Your task to perform on an android device: When is my next meeting? Image 0: 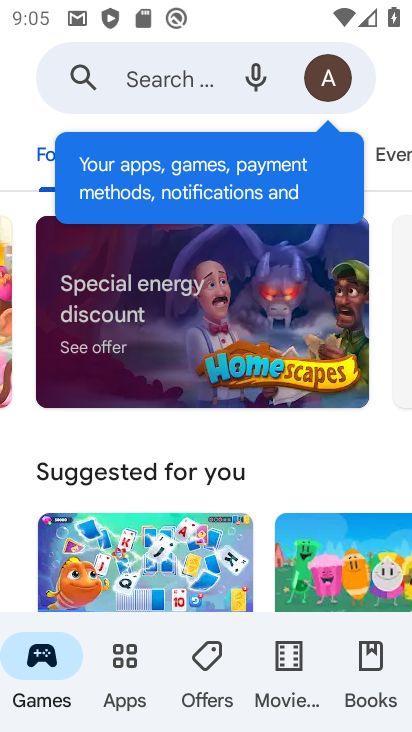
Step 0: press home button
Your task to perform on an android device: When is my next meeting? Image 1: 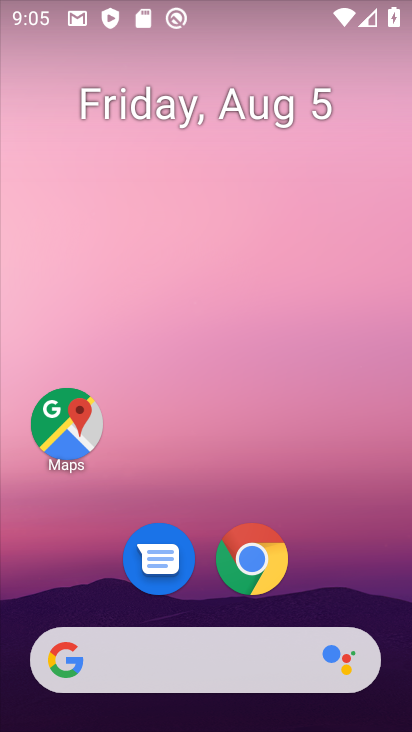
Step 1: drag from (312, 667) to (225, 207)
Your task to perform on an android device: When is my next meeting? Image 2: 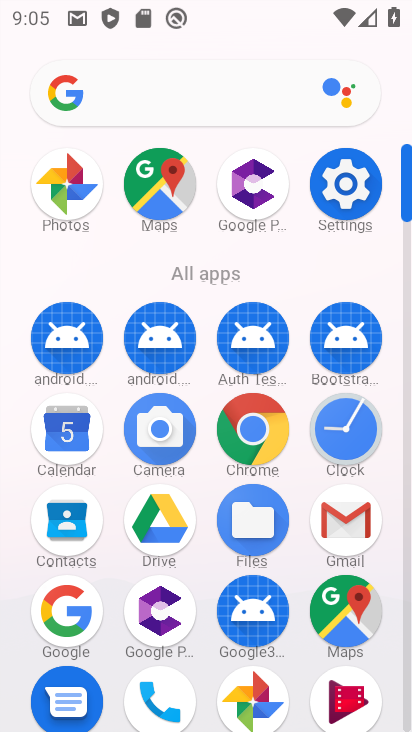
Step 2: click (65, 436)
Your task to perform on an android device: When is my next meeting? Image 3: 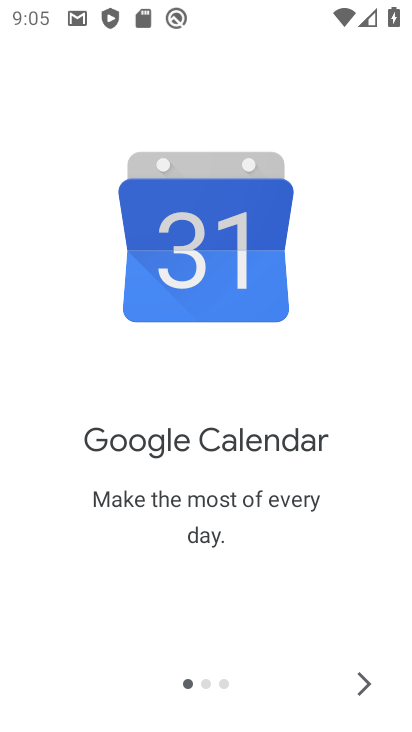
Step 3: click (365, 683)
Your task to perform on an android device: When is my next meeting? Image 4: 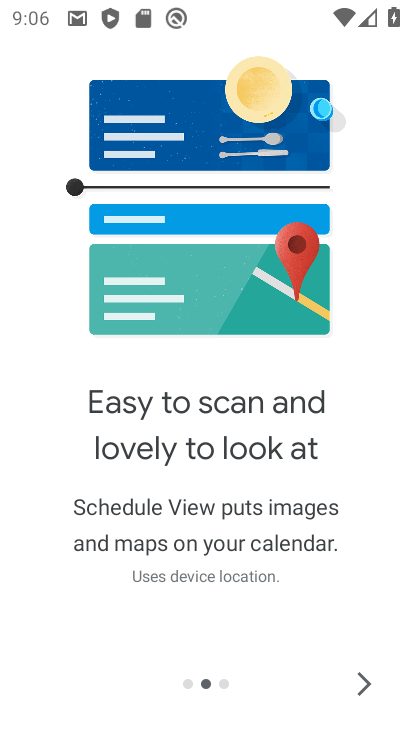
Step 4: click (366, 682)
Your task to perform on an android device: When is my next meeting? Image 5: 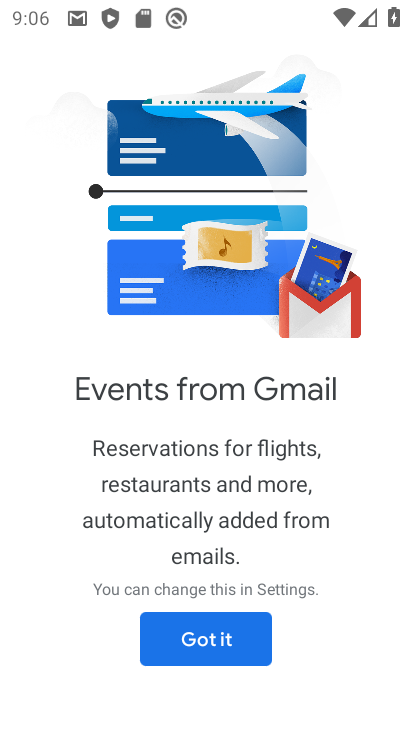
Step 5: click (248, 643)
Your task to perform on an android device: When is my next meeting? Image 6: 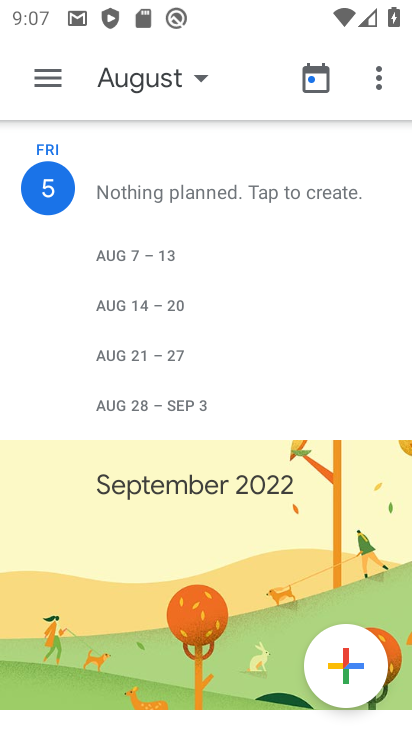
Step 6: click (56, 87)
Your task to perform on an android device: When is my next meeting? Image 7: 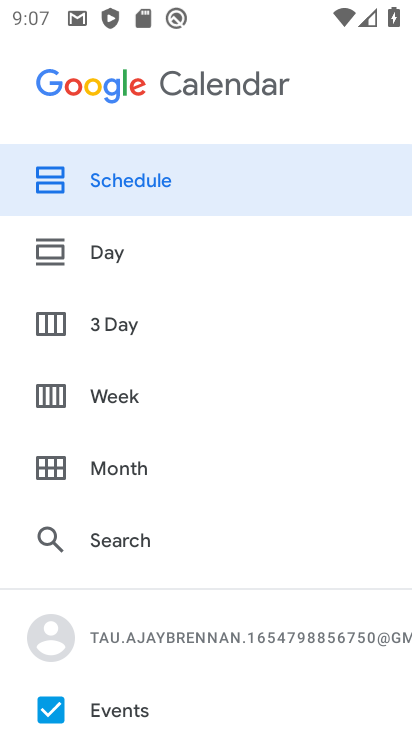
Step 7: drag from (144, 640) to (223, 56)
Your task to perform on an android device: When is my next meeting? Image 8: 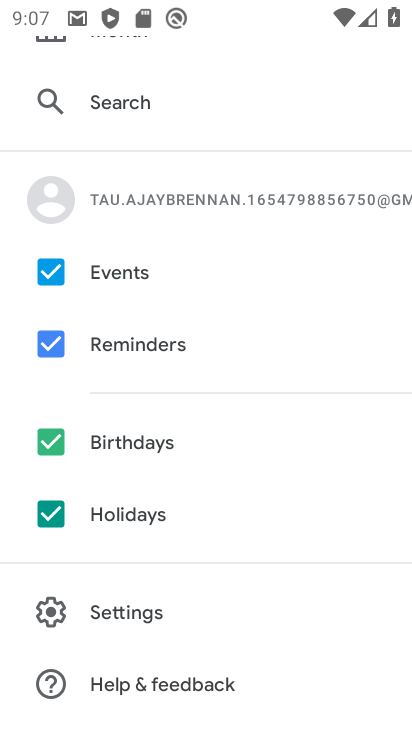
Step 8: click (49, 519)
Your task to perform on an android device: When is my next meeting? Image 9: 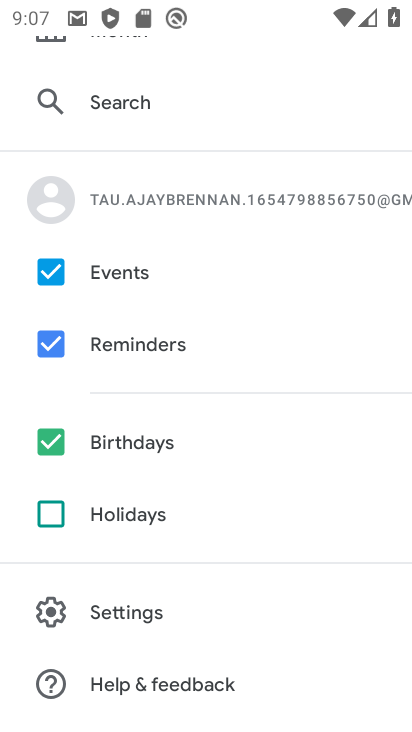
Step 9: click (47, 448)
Your task to perform on an android device: When is my next meeting? Image 10: 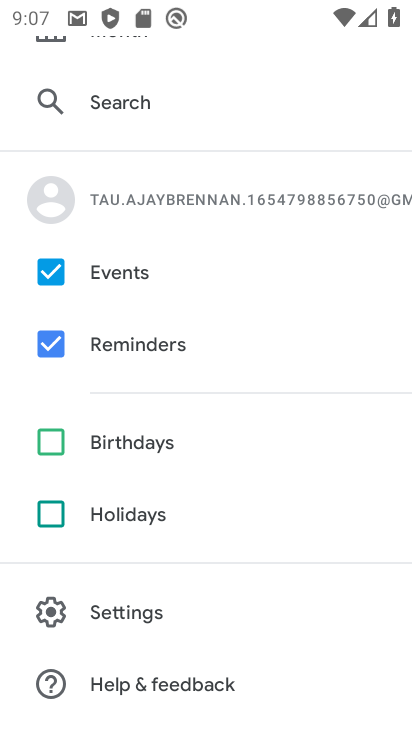
Step 10: task complete